Your task to perform on an android device: toggle javascript in the chrome app Image 0: 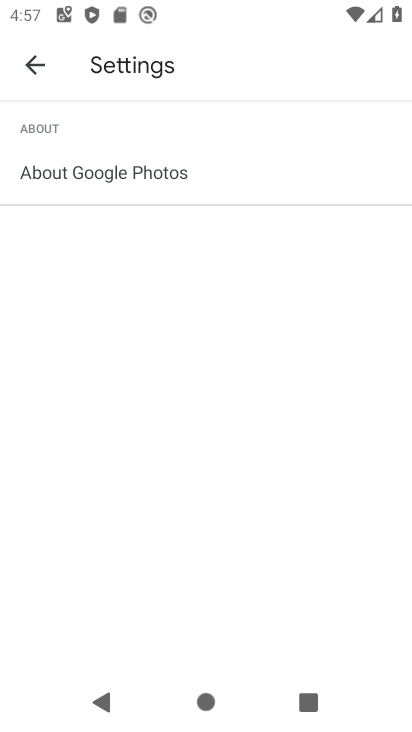
Step 0: press home button
Your task to perform on an android device: toggle javascript in the chrome app Image 1: 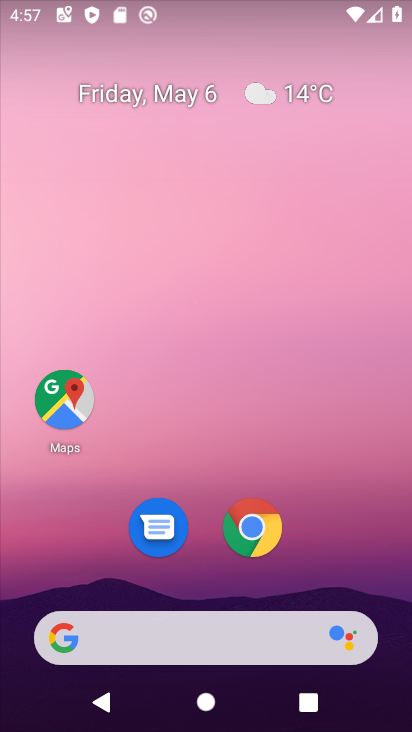
Step 1: drag from (320, 461) to (309, 161)
Your task to perform on an android device: toggle javascript in the chrome app Image 2: 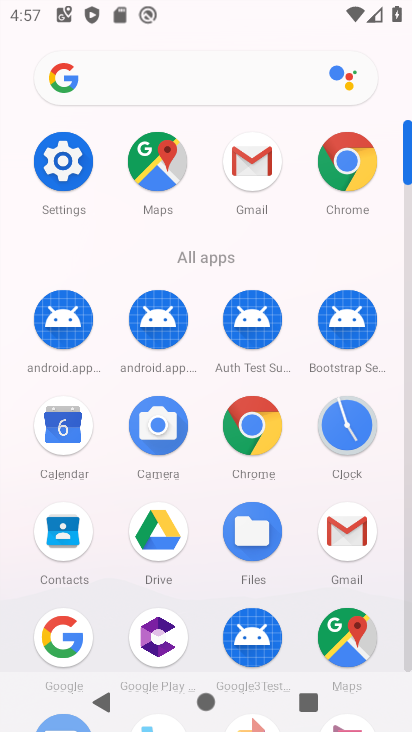
Step 2: click (361, 173)
Your task to perform on an android device: toggle javascript in the chrome app Image 3: 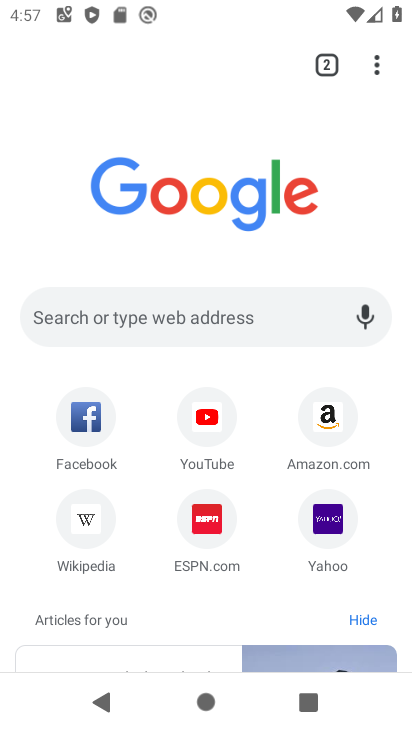
Step 3: drag from (387, 75) to (153, 557)
Your task to perform on an android device: toggle javascript in the chrome app Image 4: 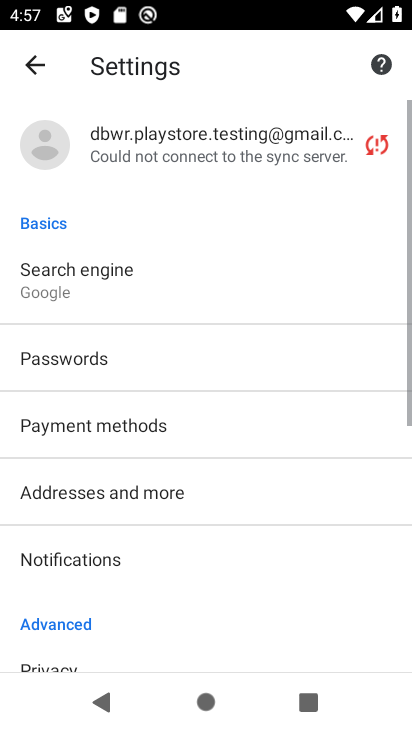
Step 4: drag from (155, 557) to (222, 108)
Your task to perform on an android device: toggle javascript in the chrome app Image 5: 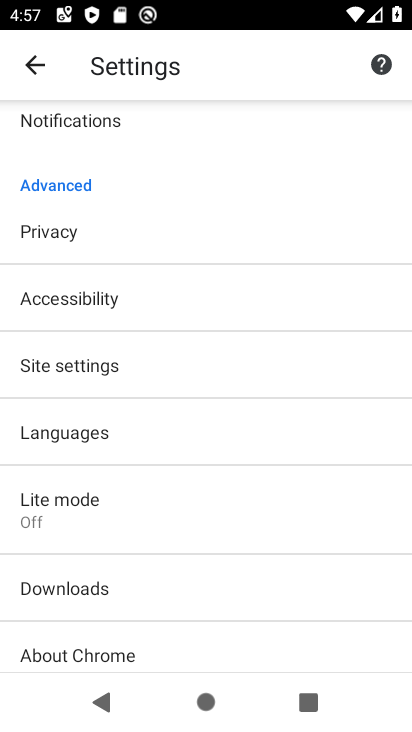
Step 5: click (110, 363)
Your task to perform on an android device: toggle javascript in the chrome app Image 6: 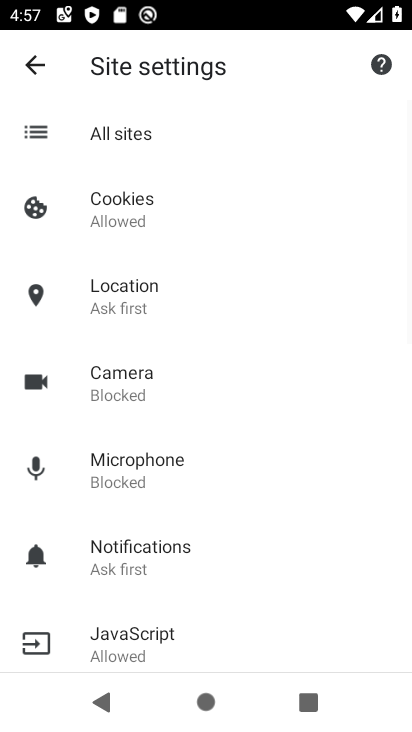
Step 6: drag from (112, 628) to (82, 231)
Your task to perform on an android device: toggle javascript in the chrome app Image 7: 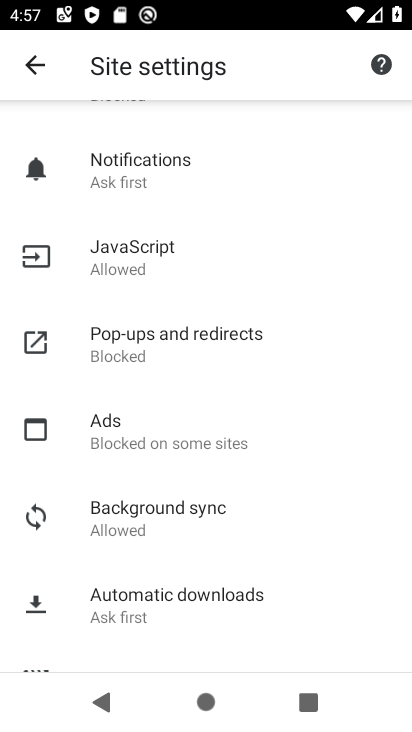
Step 7: click (82, 242)
Your task to perform on an android device: toggle javascript in the chrome app Image 8: 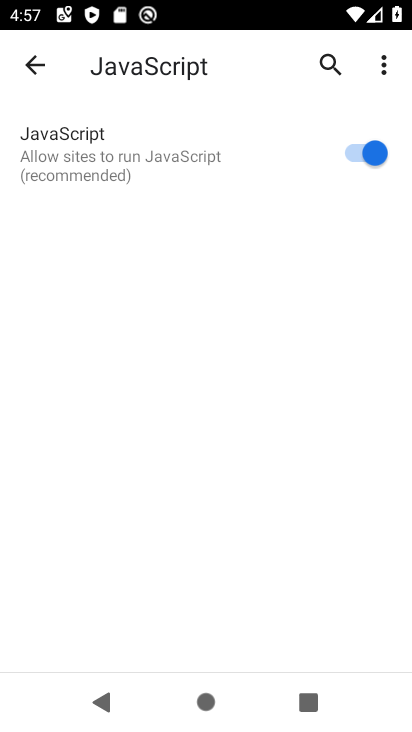
Step 8: click (356, 151)
Your task to perform on an android device: toggle javascript in the chrome app Image 9: 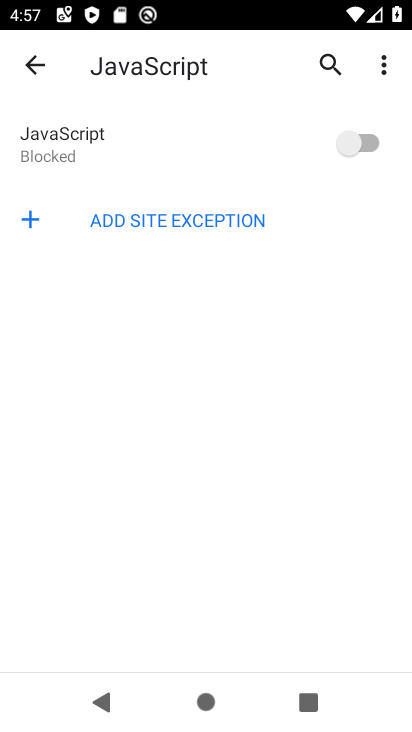
Step 9: task complete